Your task to perform on an android device: toggle location history Image 0: 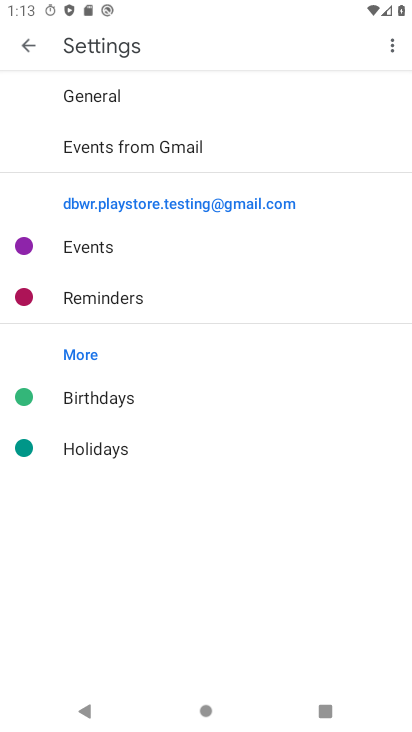
Step 0: press home button
Your task to perform on an android device: toggle location history Image 1: 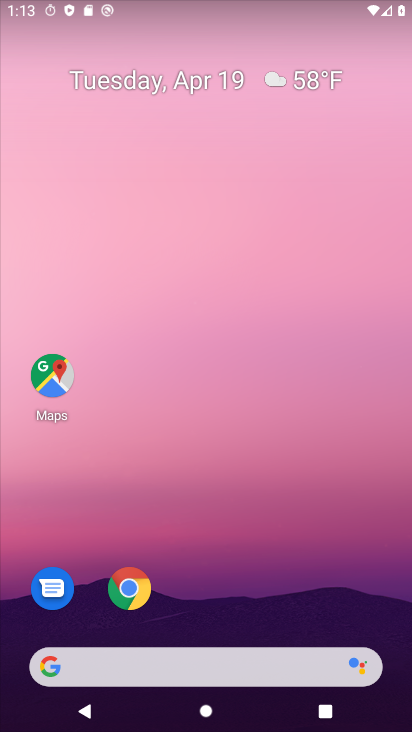
Step 1: drag from (219, 606) to (237, 204)
Your task to perform on an android device: toggle location history Image 2: 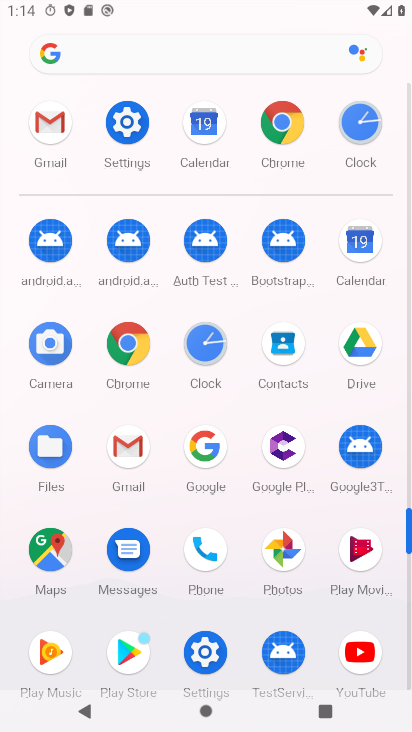
Step 2: click (127, 130)
Your task to perform on an android device: toggle location history Image 3: 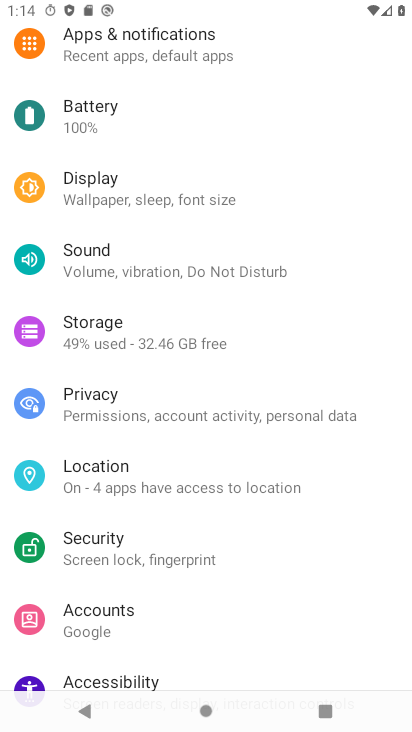
Step 3: click (135, 495)
Your task to perform on an android device: toggle location history Image 4: 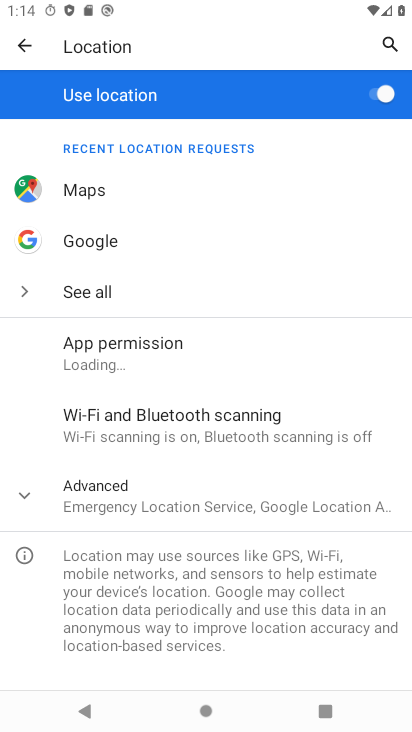
Step 4: click (142, 494)
Your task to perform on an android device: toggle location history Image 5: 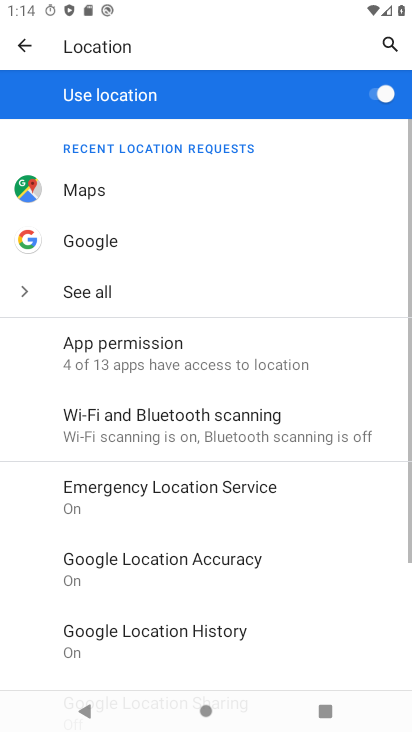
Step 5: drag from (232, 557) to (238, 313)
Your task to perform on an android device: toggle location history Image 6: 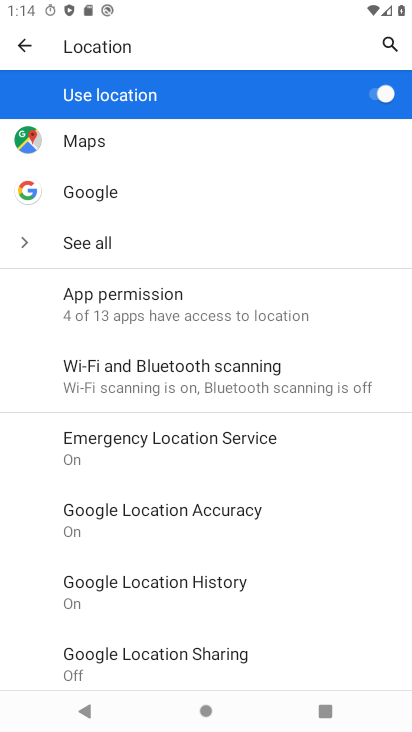
Step 6: click (246, 573)
Your task to perform on an android device: toggle location history Image 7: 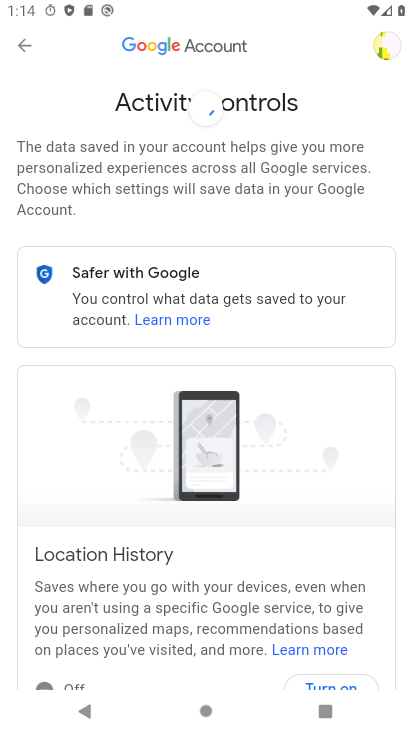
Step 7: drag from (302, 550) to (315, 279)
Your task to perform on an android device: toggle location history Image 8: 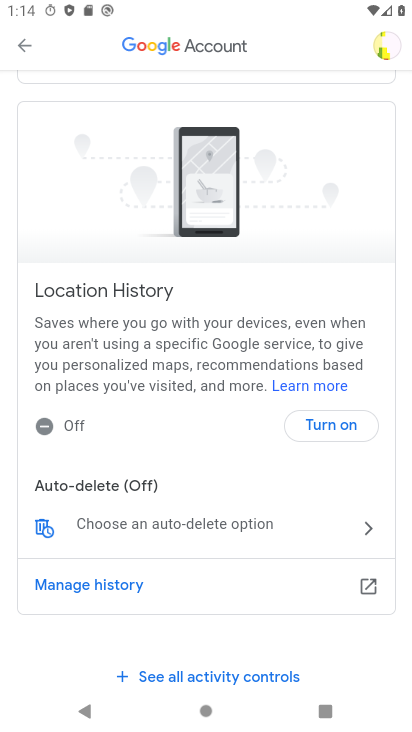
Step 8: click (324, 428)
Your task to perform on an android device: toggle location history Image 9: 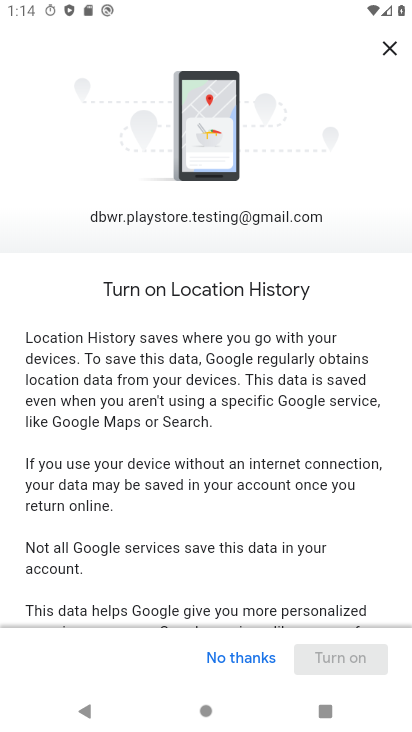
Step 9: drag from (307, 524) to (284, 100)
Your task to perform on an android device: toggle location history Image 10: 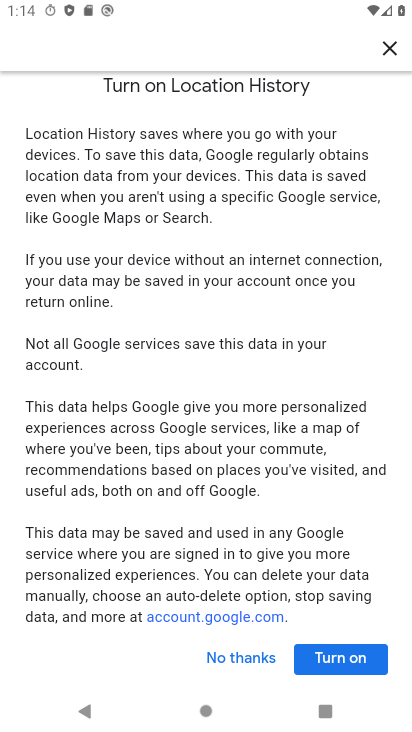
Step 10: click (330, 657)
Your task to perform on an android device: toggle location history Image 11: 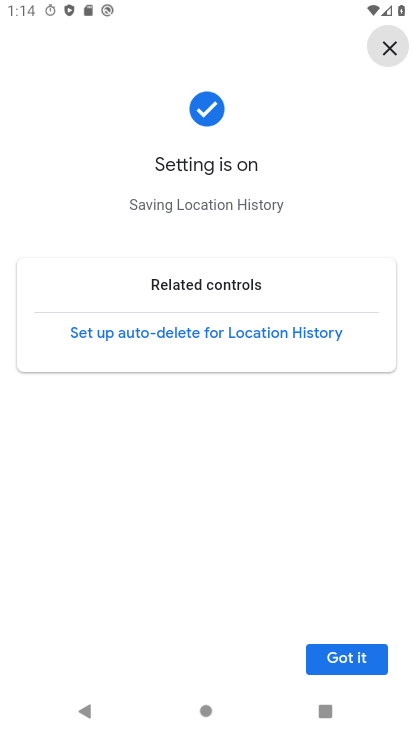
Step 11: click (342, 651)
Your task to perform on an android device: toggle location history Image 12: 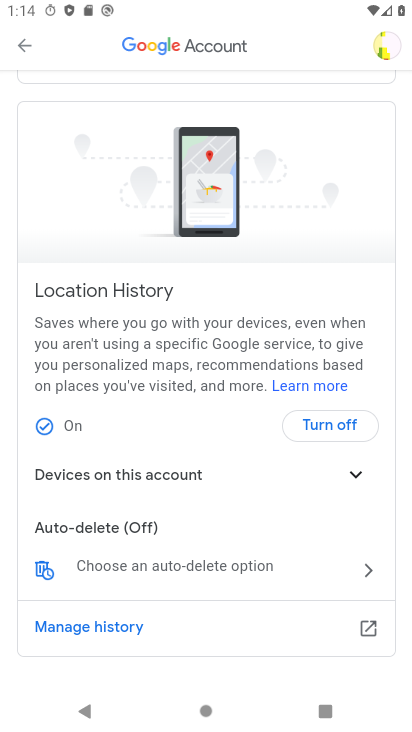
Step 12: task complete